Your task to perform on an android device: Search for Italian restaurants on Maps Image 0: 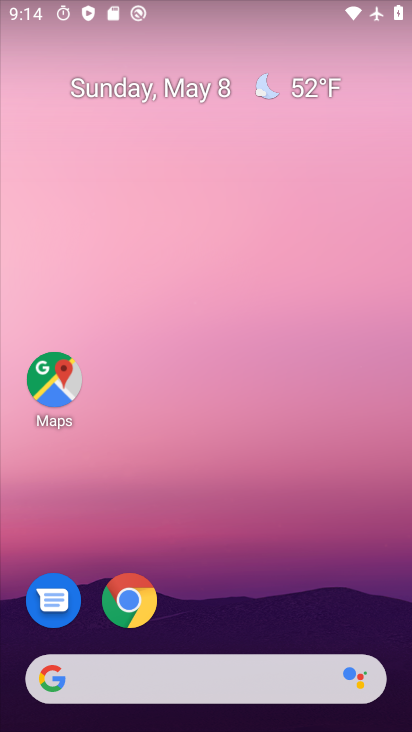
Step 0: click (65, 380)
Your task to perform on an android device: Search for Italian restaurants on Maps Image 1: 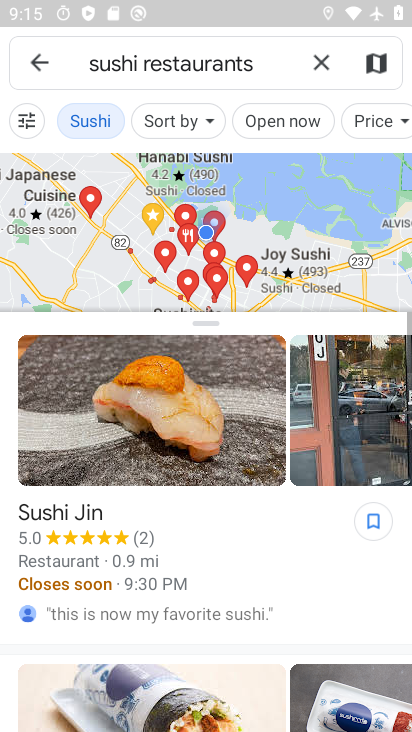
Step 1: click (319, 62)
Your task to perform on an android device: Search for Italian restaurants on Maps Image 2: 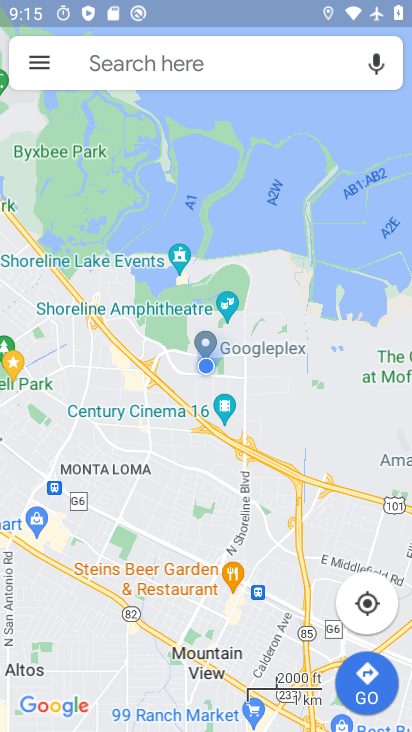
Step 2: click (220, 61)
Your task to perform on an android device: Search for Italian restaurants on Maps Image 3: 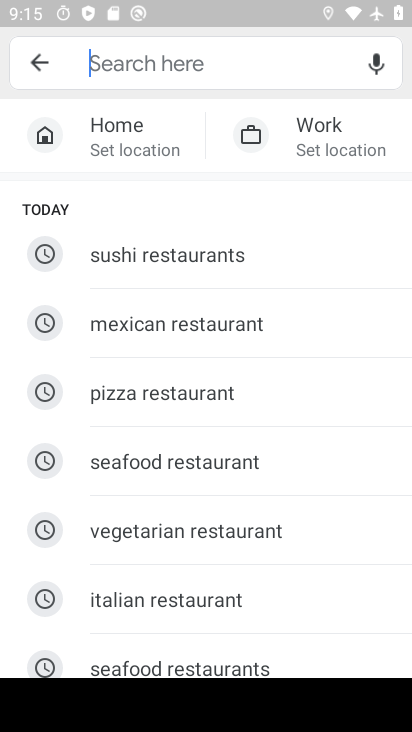
Step 3: click (168, 614)
Your task to perform on an android device: Search for Italian restaurants on Maps Image 4: 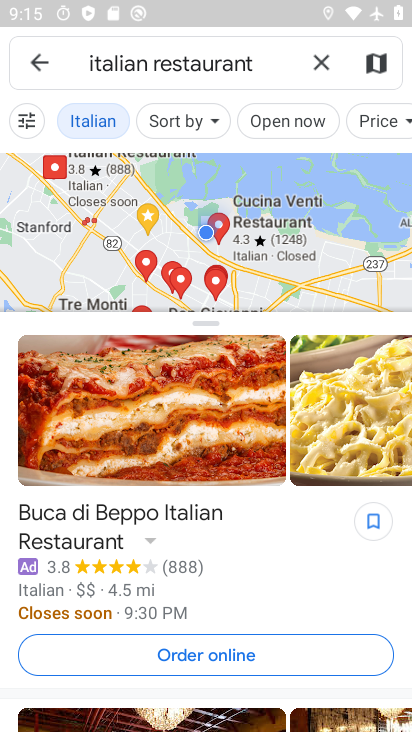
Step 4: task complete